Your task to perform on an android device: toggle priority inbox in the gmail app Image 0: 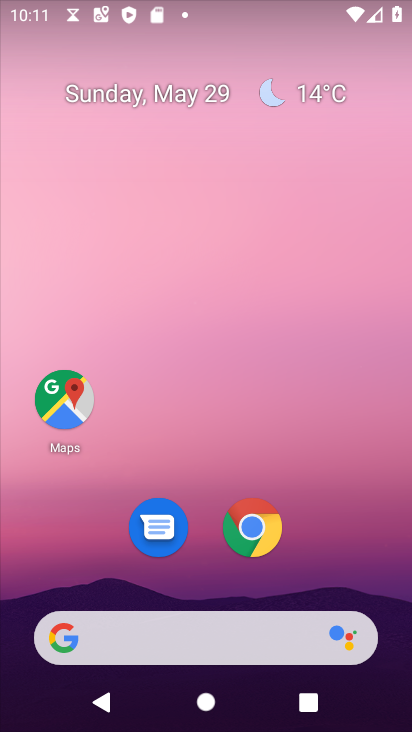
Step 0: drag from (247, 510) to (355, 49)
Your task to perform on an android device: toggle priority inbox in the gmail app Image 1: 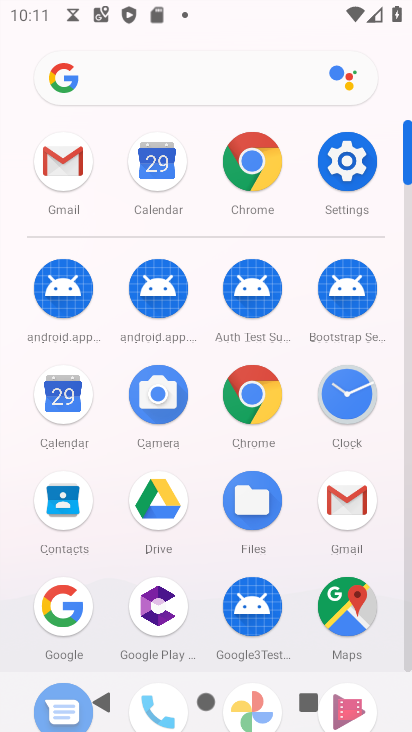
Step 1: click (65, 180)
Your task to perform on an android device: toggle priority inbox in the gmail app Image 2: 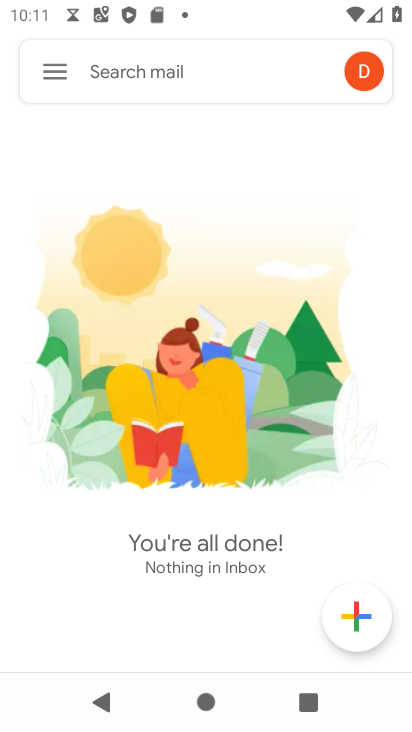
Step 2: click (54, 72)
Your task to perform on an android device: toggle priority inbox in the gmail app Image 3: 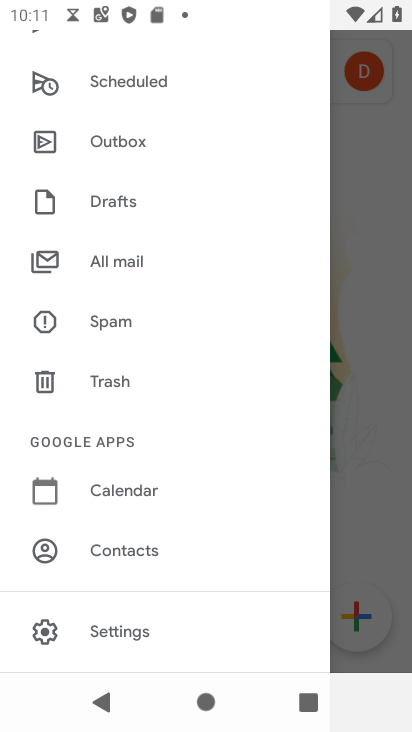
Step 3: click (131, 631)
Your task to perform on an android device: toggle priority inbox in the gmail app Image 4: 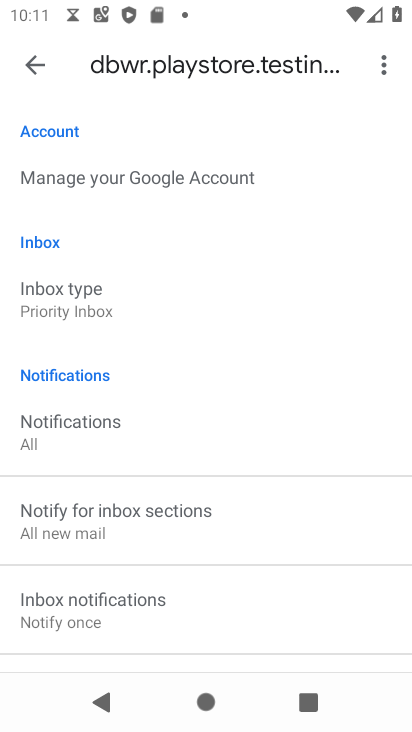
Step 4: click (83, 305)
Your task to perform on an android device: toggle priority inbox in the gmail app Image 5: 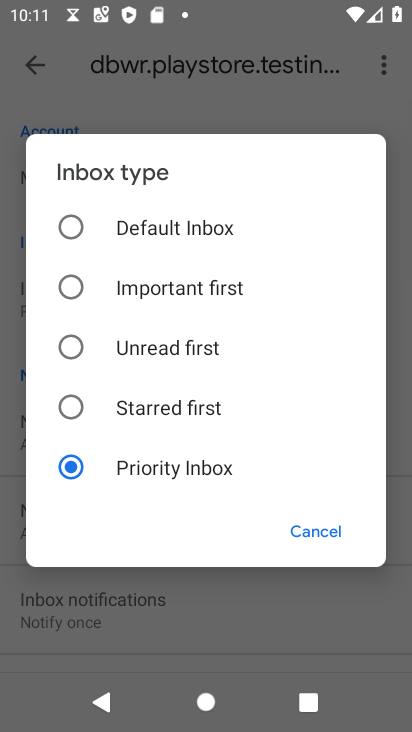
Step 5: click (71, 229)
Your task to perform on an android device: toggle priority inbox in the gmail app Image 6: 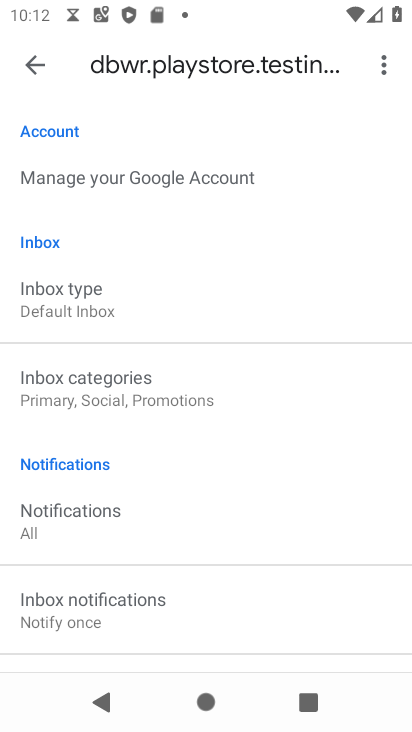
Step 6: task complete